Your task to perform on an android device: show emergency info Image 0: 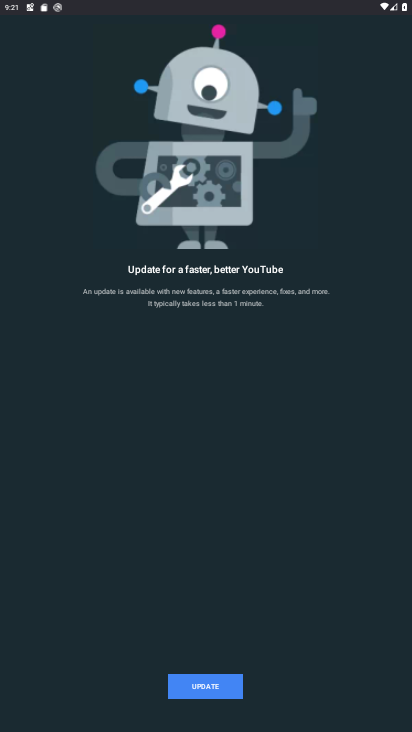
Step 0: press home button
Your task to perform on an android device: show emergency info Image 1: 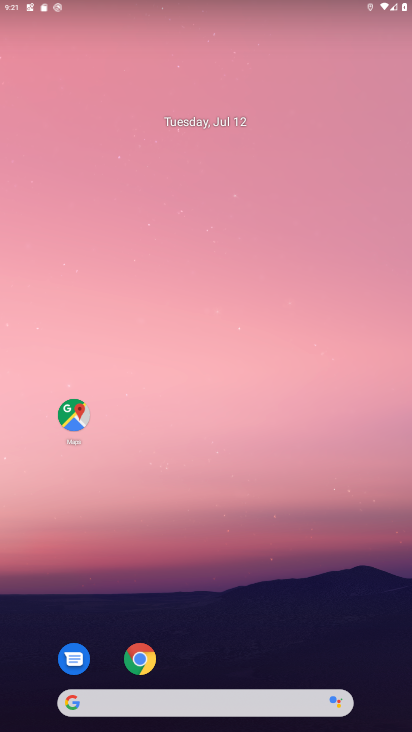
Step 1: drag from (200, 577) to (210, 1)
Your task to perform on an android device: show emergency info Image 2: 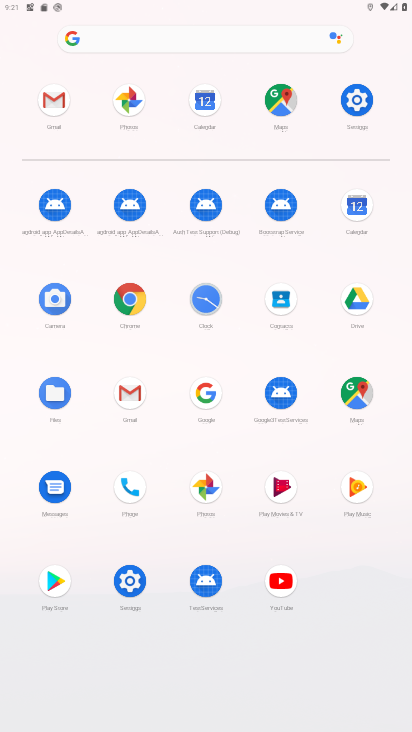
Step 2: click (125, 591)
Your task to perform on an android device: show emergency info Image 3: 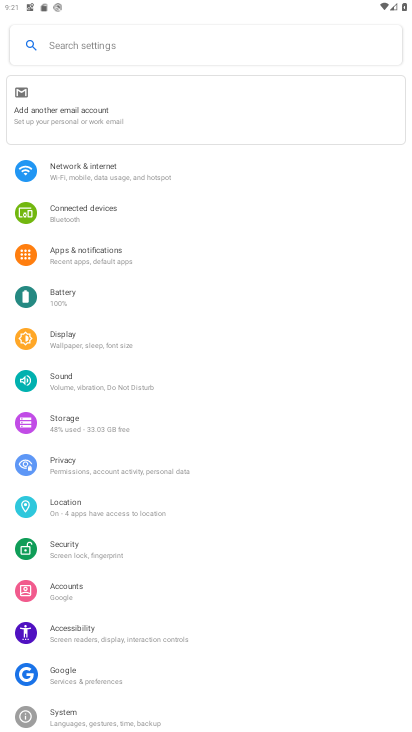
Step 3: drag from (166, 588) to (244, 58)
Your task to perform on an android device: show emergency info Image 4: 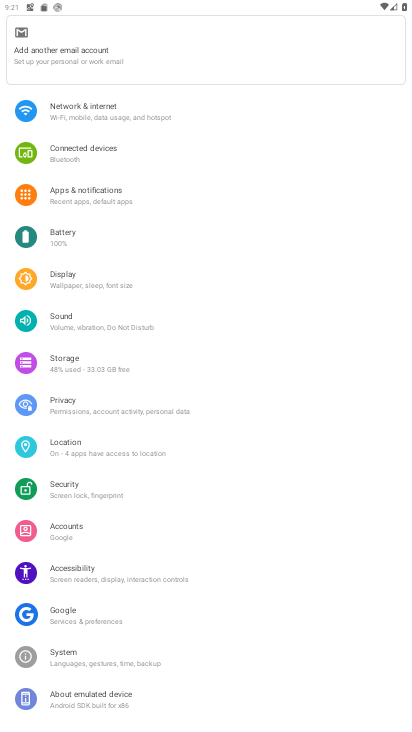
Step 4: click (86, 697)
Your task to perform on an android device: show emergency info Image 5: 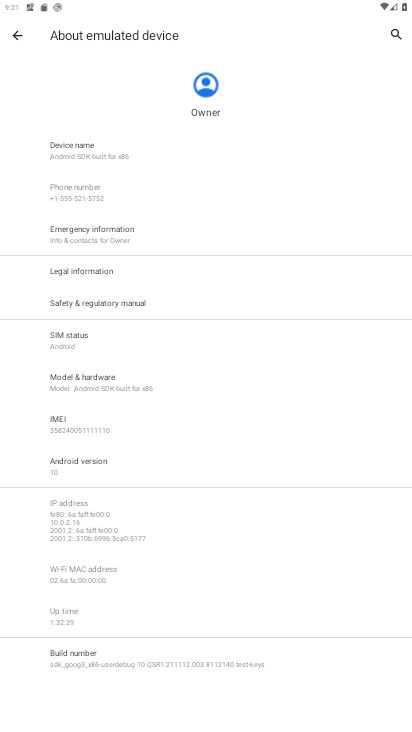
Step 5: click (111, 239)
Your task to perform on an android device: show emergency info Image 6: 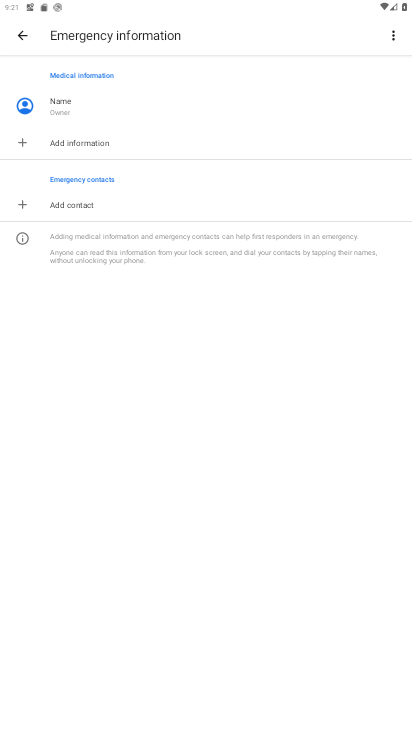
Step 6: task complete